Your task to perform on an android device: turn notification dots off Image 0: 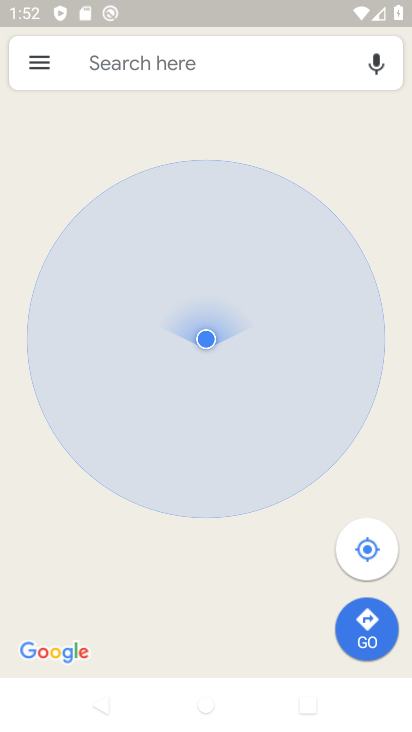
Step 0: press home button
Your task to perform on an android device: turn notification dots off Image 1: 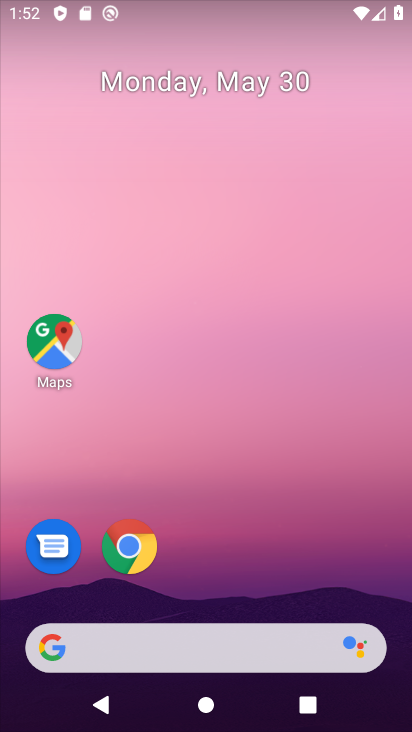
Step 1: drag from (213, 597) to (245, 4)
Your task to perform on an android device: turn notification dots off Image 2: 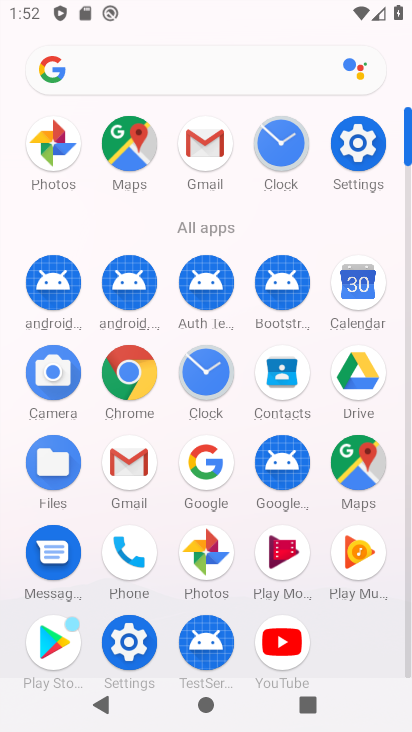
Step 2: click (360, 131)
Your task to perform on an android device: turn notification dots off Image 3: 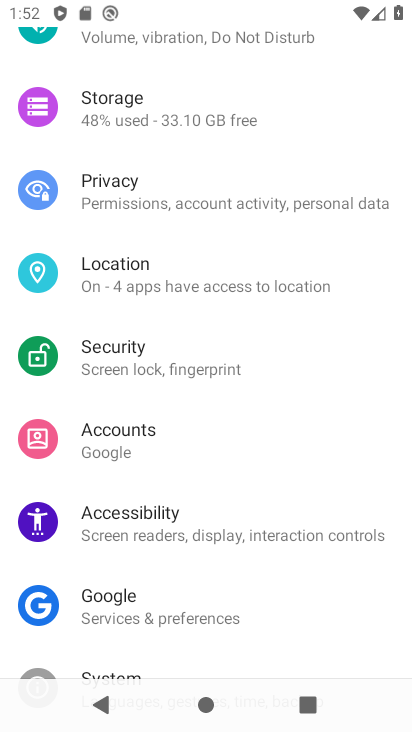
Step 3: drag from (178, 76) to (135, 538)
Your task to perform on an android device: turn notification dots off Image 4: 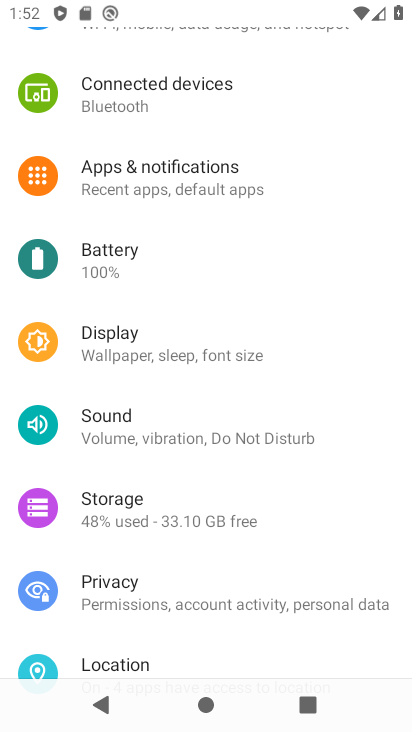
Step 4: click (193, 176)
Your task to perform on an android device: turn notification dots off Image 5: 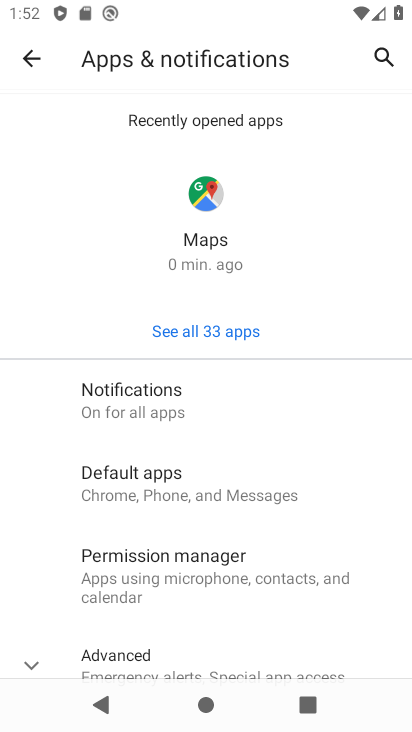
Step 5: click (188, 394)
Your task to perform on an android device: turn notification dots off Image 6: 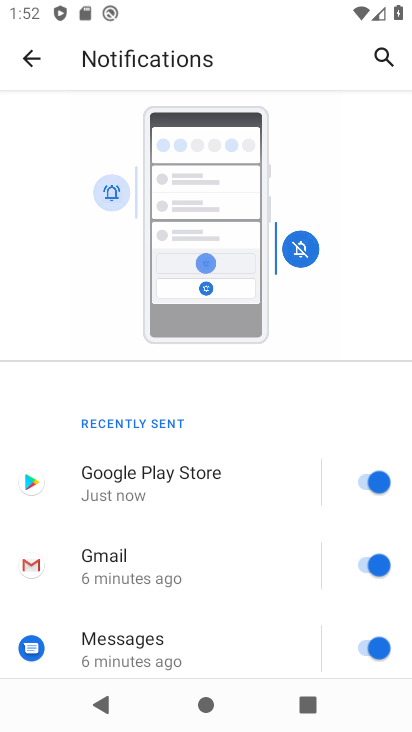
Step 6: drag from (201, 626) to (261, 90)
Your task to perform on an android device: turn notification dots off Image 7: 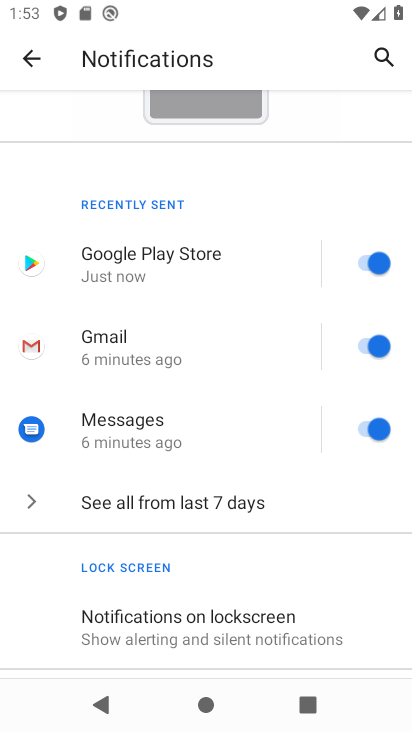
Step 7: drag from (205, 616) to (238, 167)
Your task to perform on an android device: turn notification dots off Image 8: 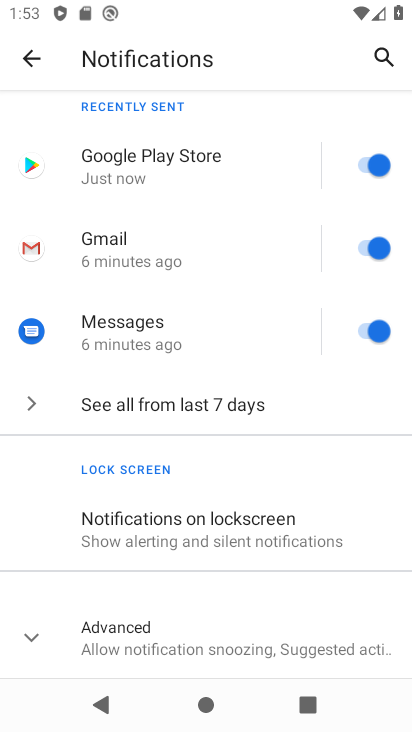
Step 8: click (23, 634)
Your task to perform on an android device: turn notification dots off Image 9: 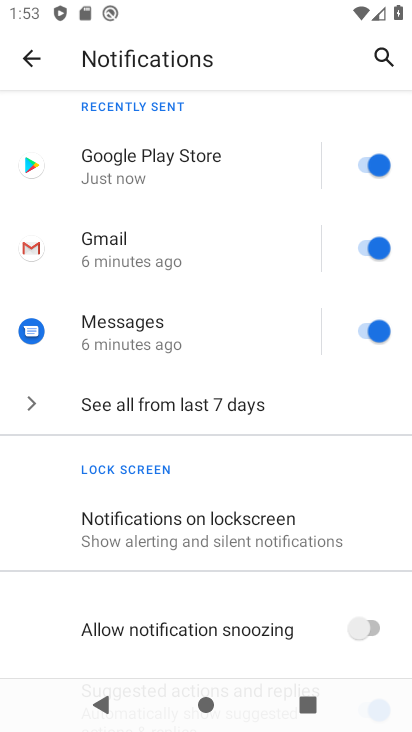
Step 9: drag from (146, 621) to (131, 140)
Your task to perform on an android device: turn notification dots off Image 10: 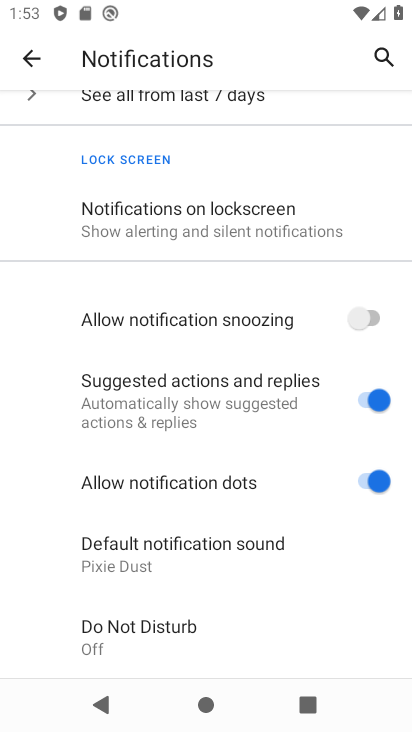
Step 10: click (372, 472)
Your task to perform on an android device: turn notification dots off Image 11: 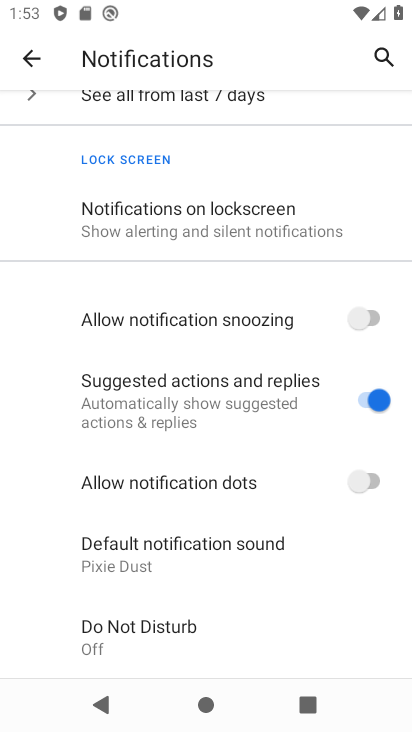
Step 11: task complete